Your task to perform on an android device: Show me popular videos on Youtube Image 0: 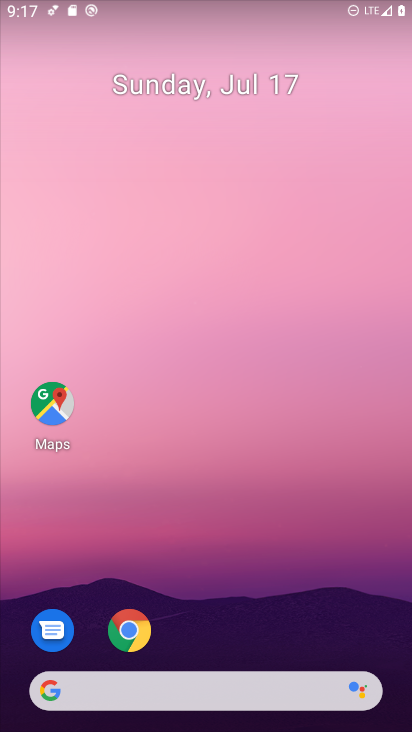
Step 0: drag from (233, 635) to (227, 92)
Your task to perform on an android device: Show me popular videos on Youtube Image 1: 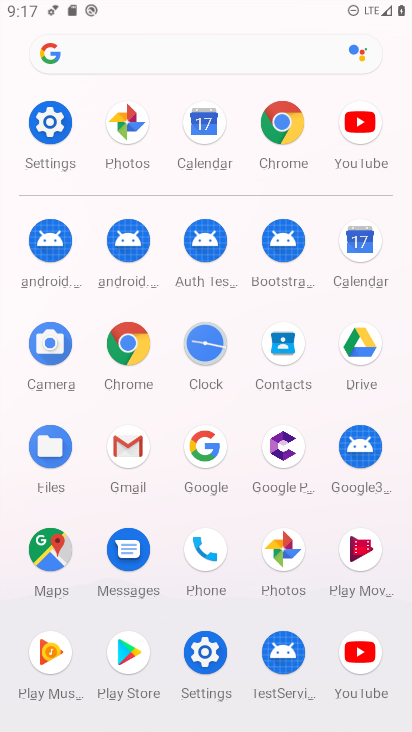
Step 1: click (359, 648)
Your task to perform on an android device: Show me popular videos on Youtube Image 2: 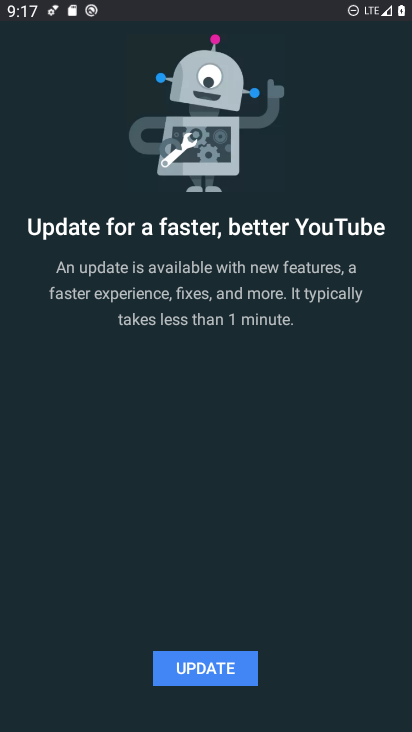
Step 2: task complete